Your task to perform on an android device: Show me the alarms in the clock app Image 0: 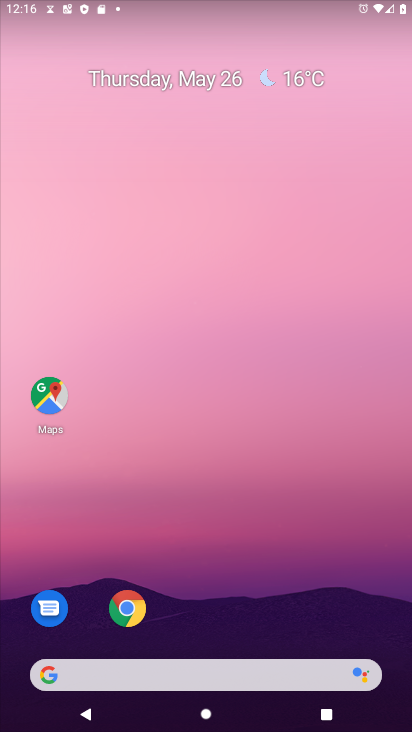
Step 0: drag from (241, 726) to (233, 140)
Your task to perform on an android device: Show me the alarms in the clock app Image 1: 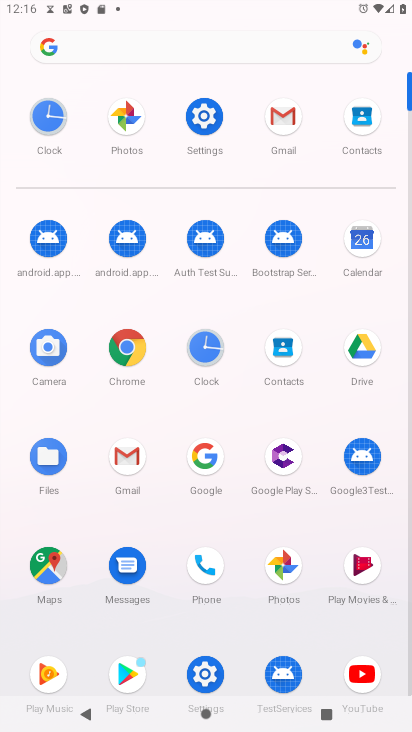
Step 1: click (202, 353)
Your task to perform on an android device: Show me the alarms in the clock app Image 2: 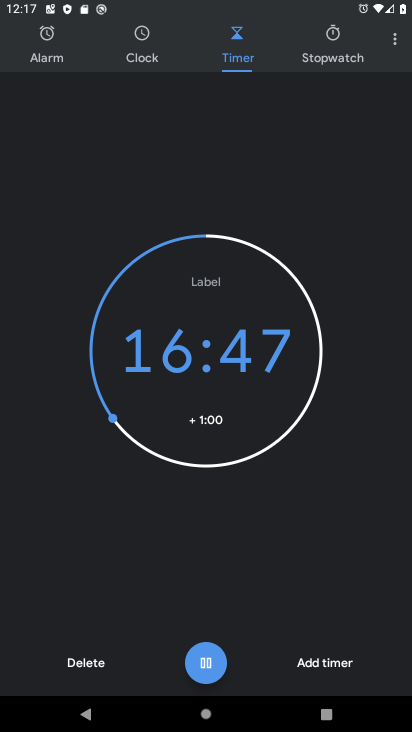
Step 2: click (41, 53)
Your task to perform on an android device: Show me the alarms in the clock app Image 3: 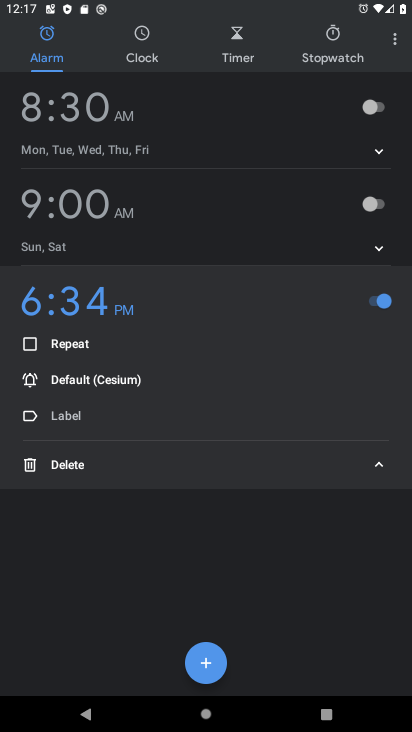
Step 3: task complete